Your task to perform on an android device: uninstall "Microsoft Outlook" Image 0: 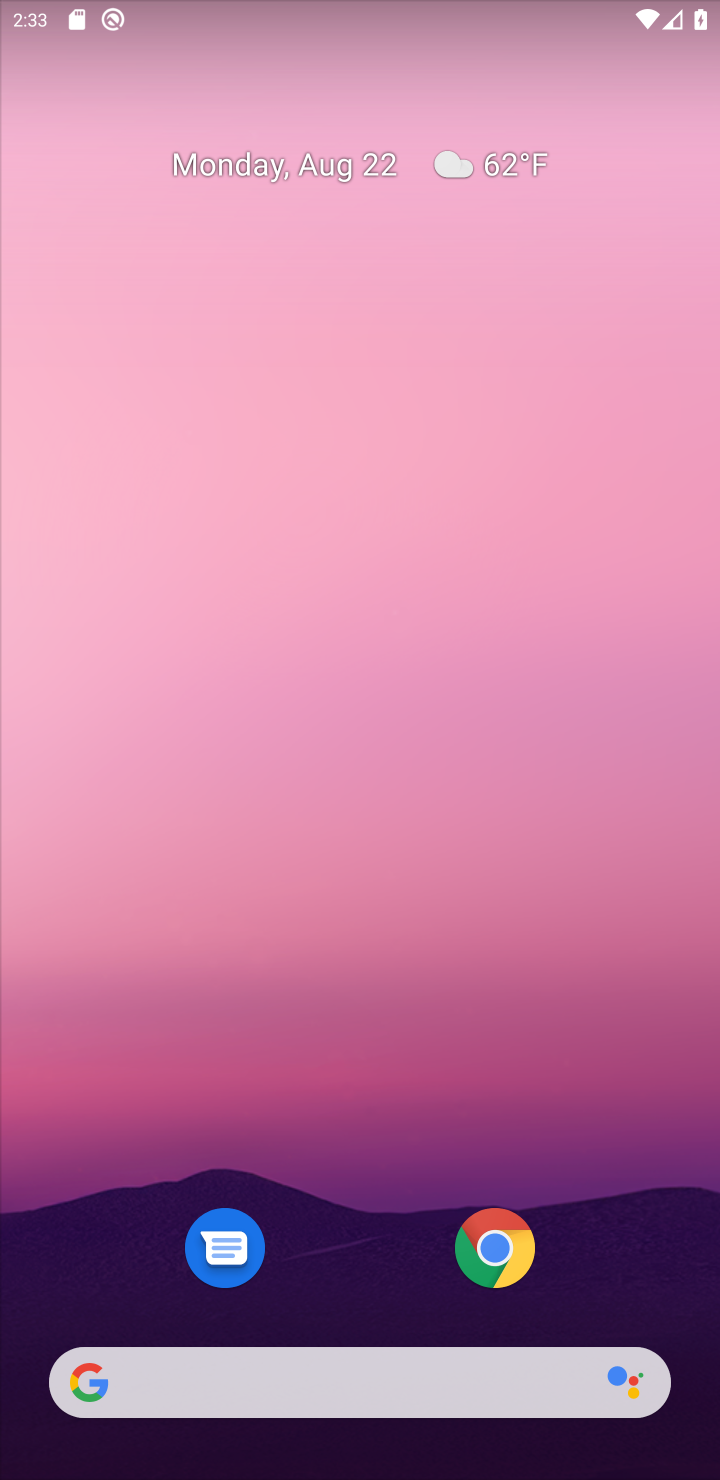
Step 0: drag from (340, 1263) to (335, 303)
Your task to perform on an android device: uninstall "Microsoft Outlook" Image 1: 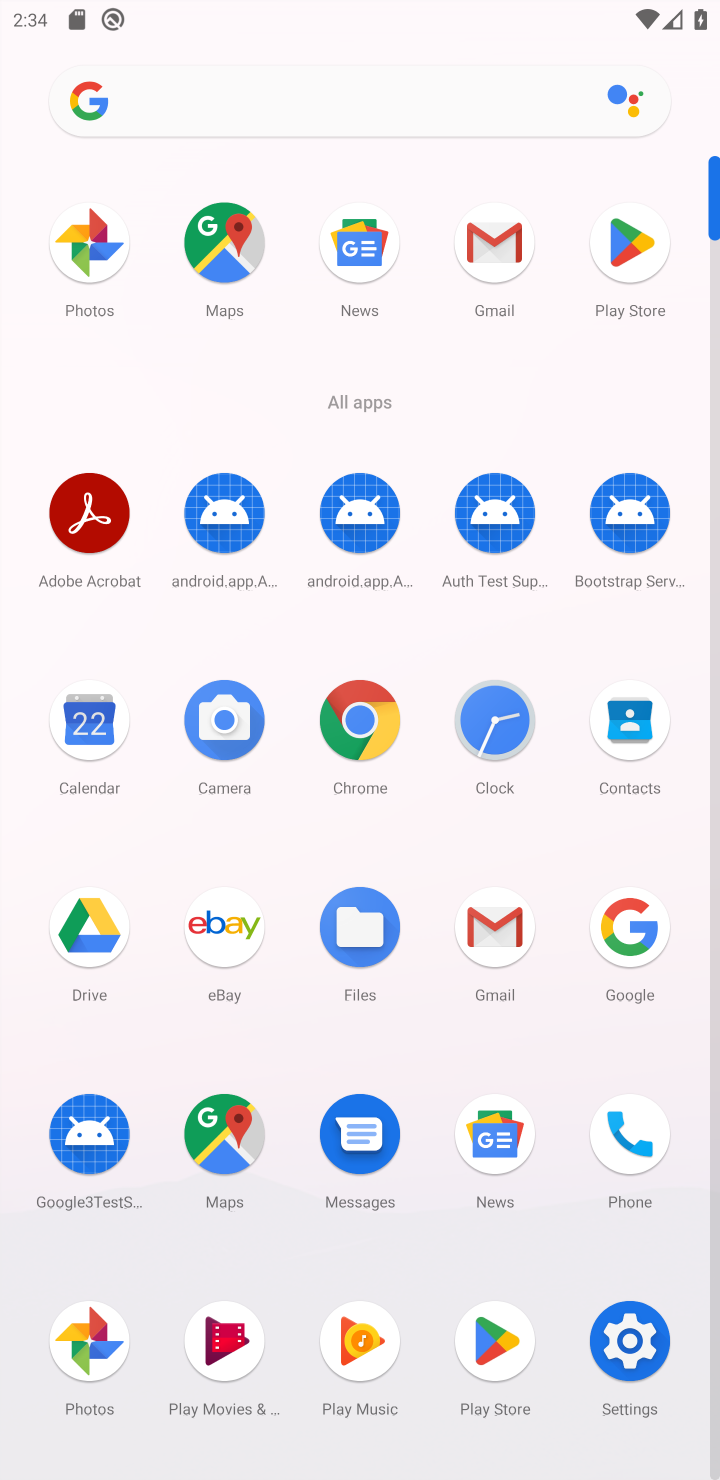
Step 1: click (631, 243)
Your task to perform on an android device: uninstall "Microsoft Outlook" Image 2: 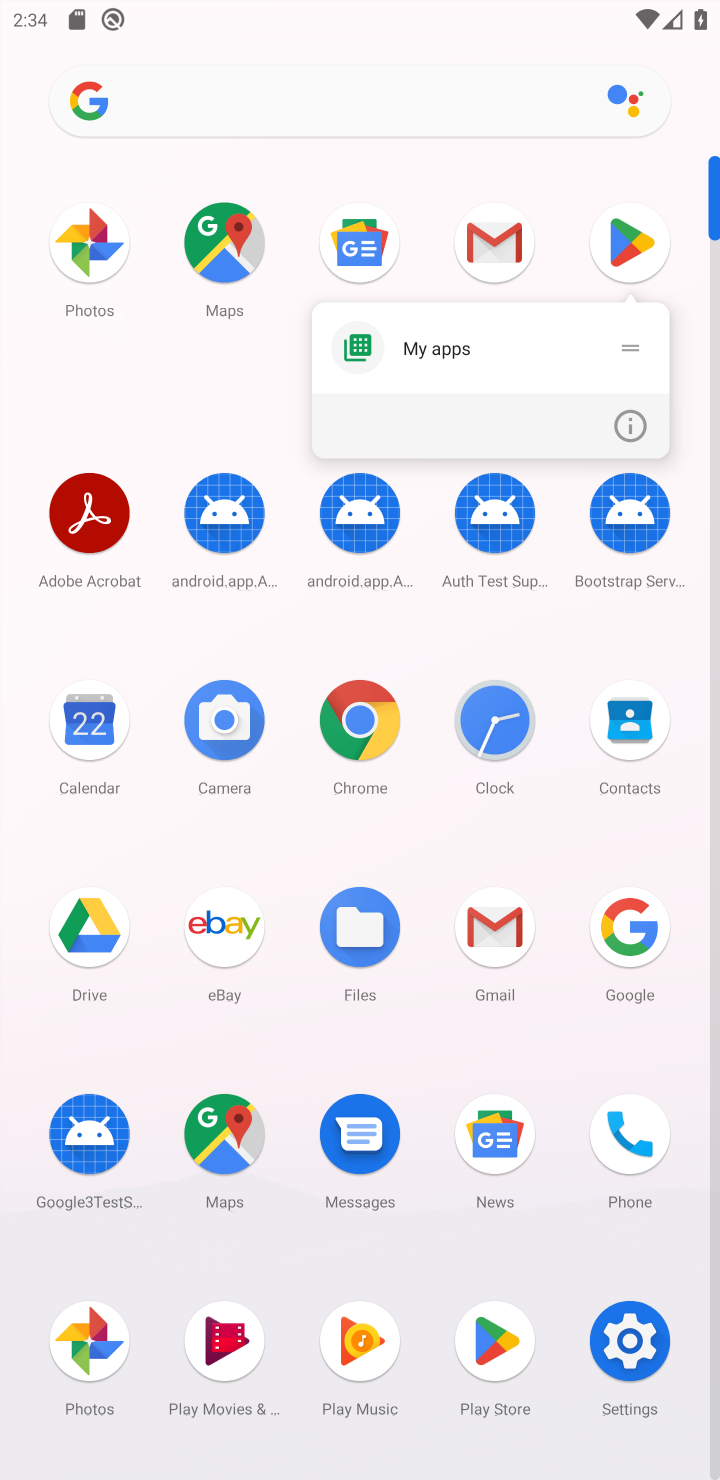
Step 2: click (616, 225)
Your task to perform on an android device: uninstall "Microsoft Outlook" Image 3: 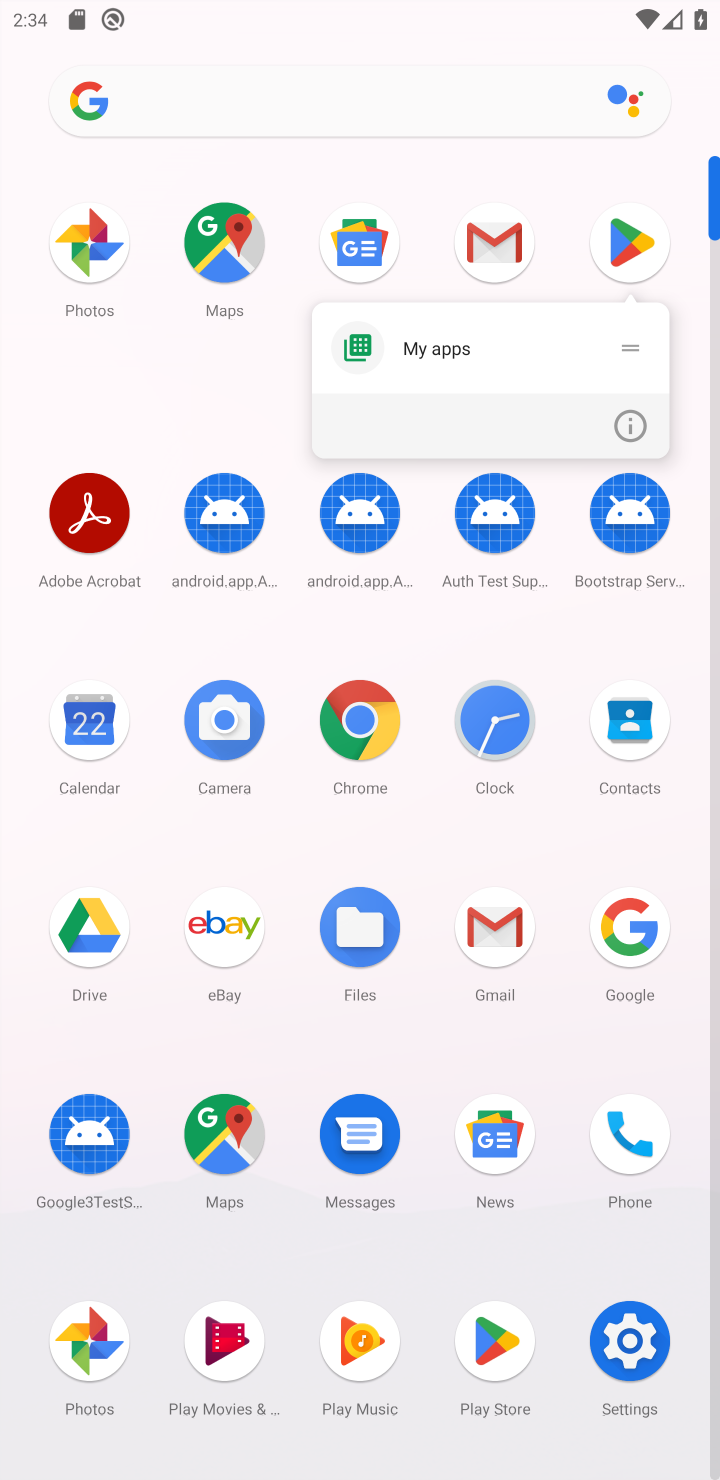
Step 3: click (631, 221)
Your task to perform on an android device: uninstall "Microsoft Outlook" Image 4: 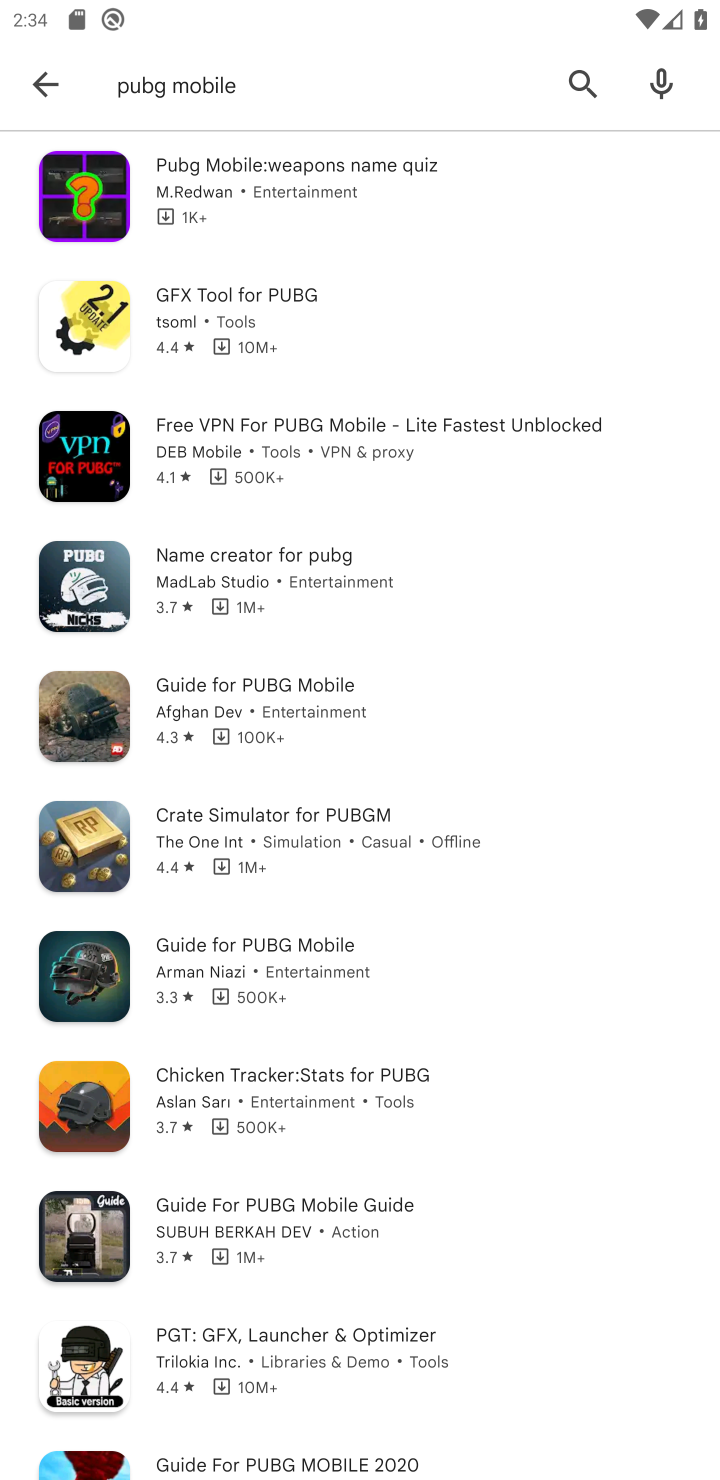
Step 4: click (251, 72)
Your task to perform on an android device: uninstall "Microsoft Outlook" Image 5: 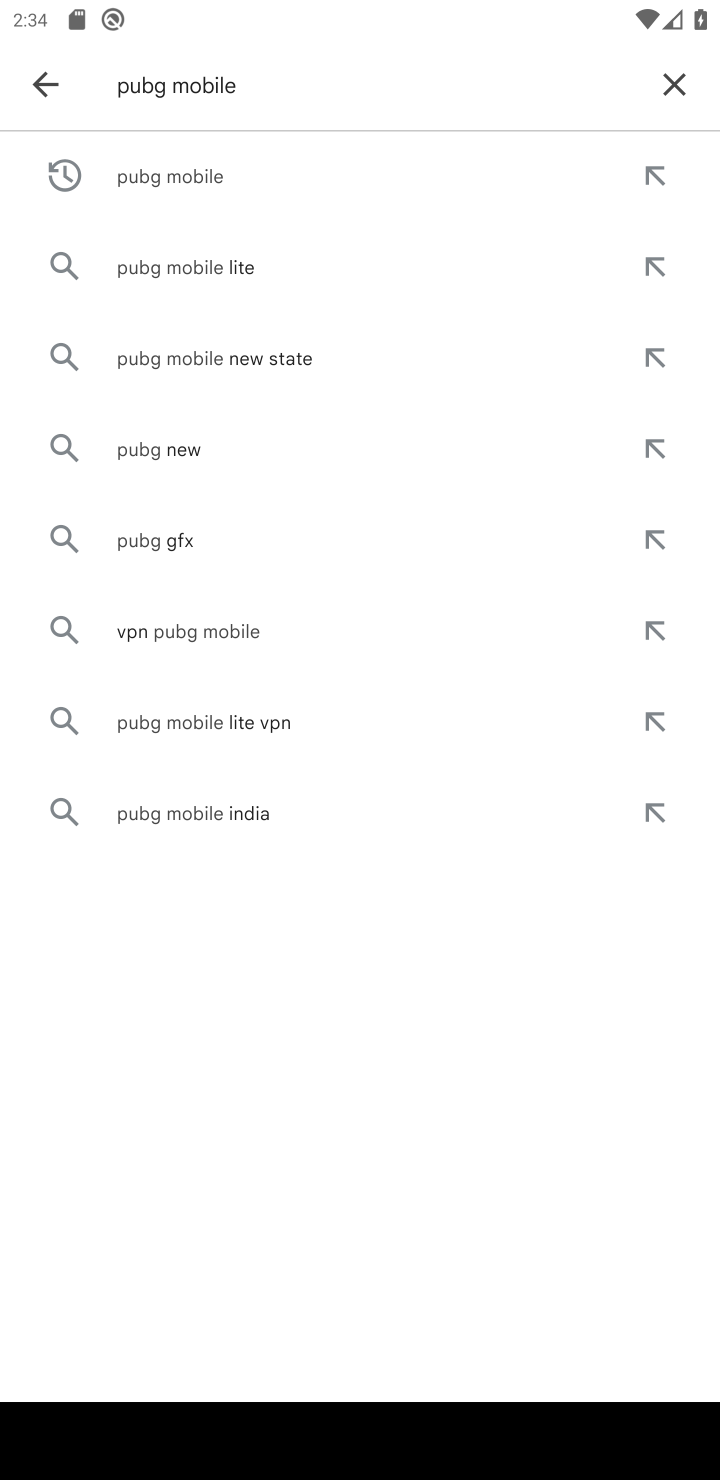
Step 5: click (671, 89)
Your task to perform on an android device: uninstall "Microsoft Outlook" Image 6: 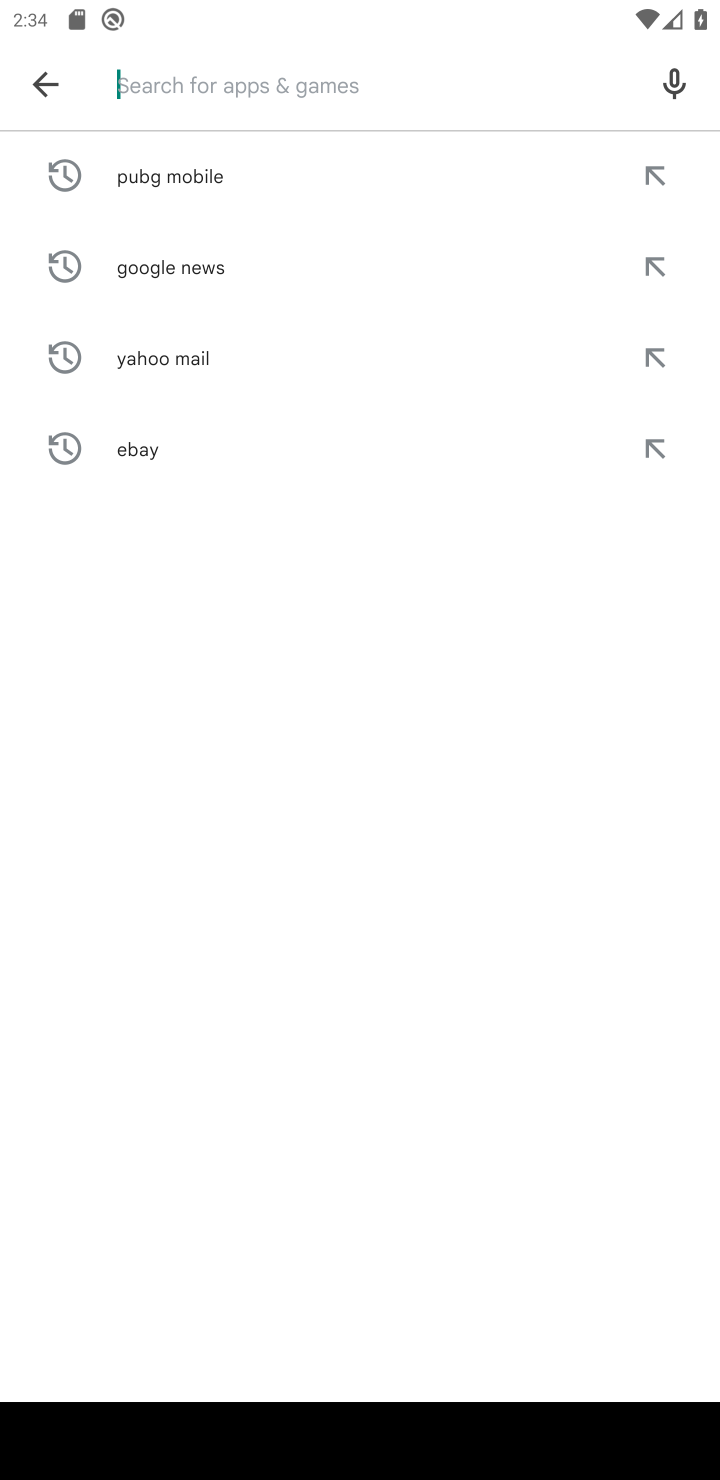
Step 6: type "microsoft Outlook"
Your task to perform on an android device: uninstall "Microsoft Outlook" Image 7: 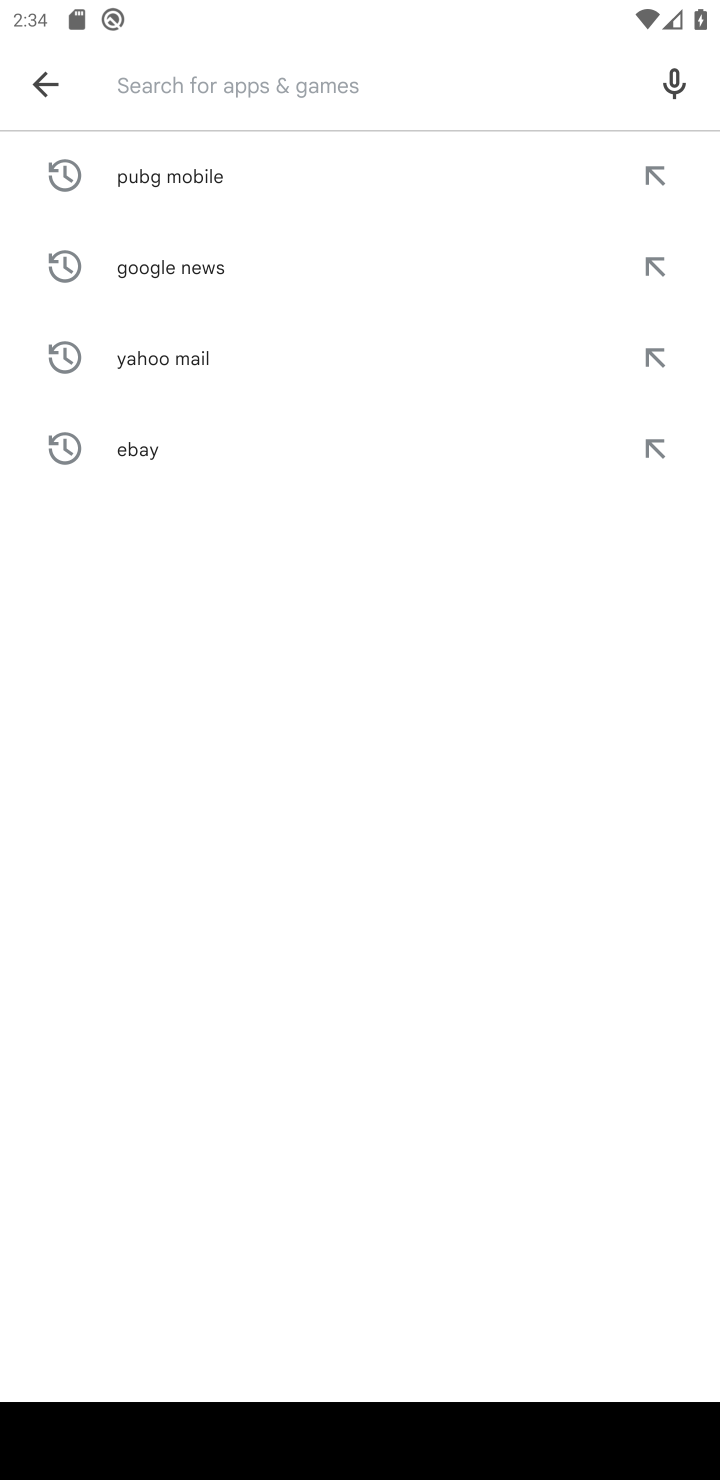
Step 7: click (369, 97)
Your task to perform on an android device: uninstall "Microsoft Outlook" Image 8: 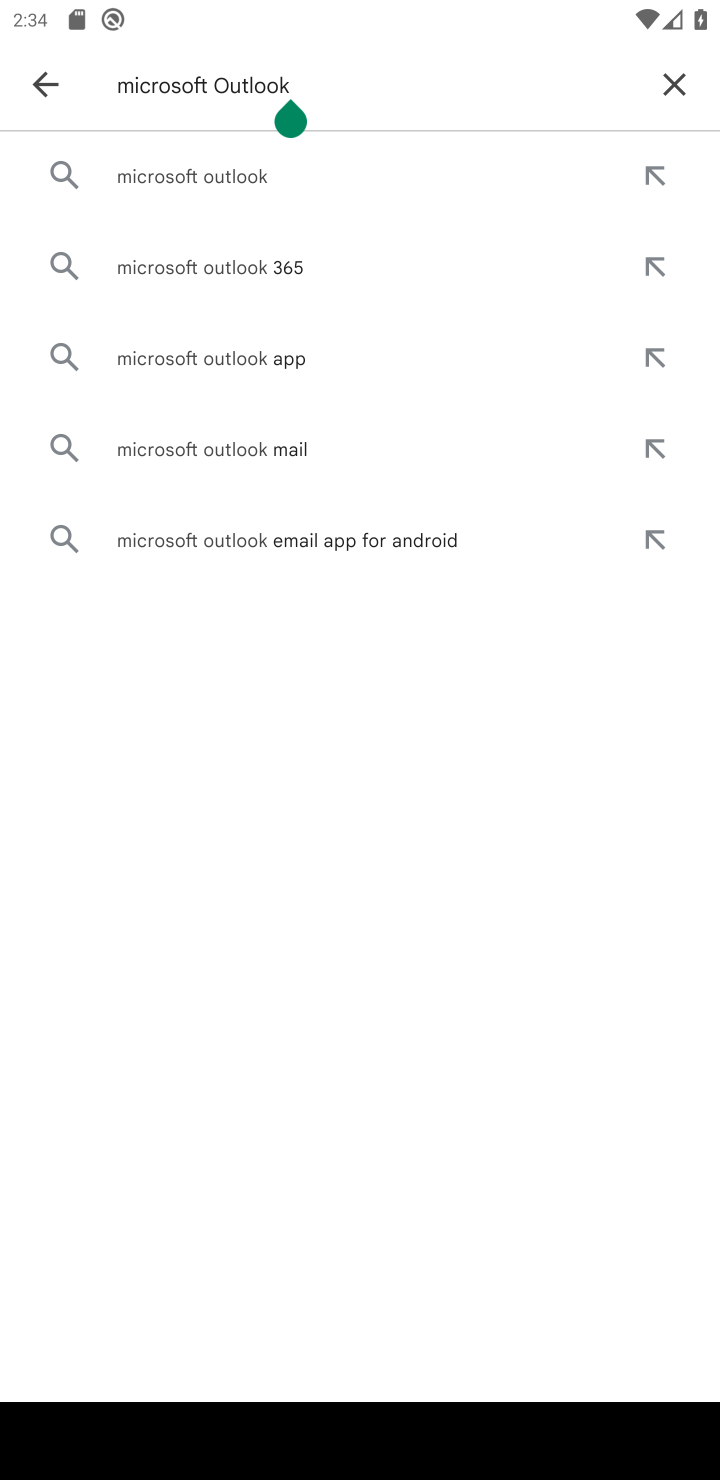
Step 8: click (217, 199)
Your task to perform on an android device: uninstall "Microsoft Outlook" Image 9: 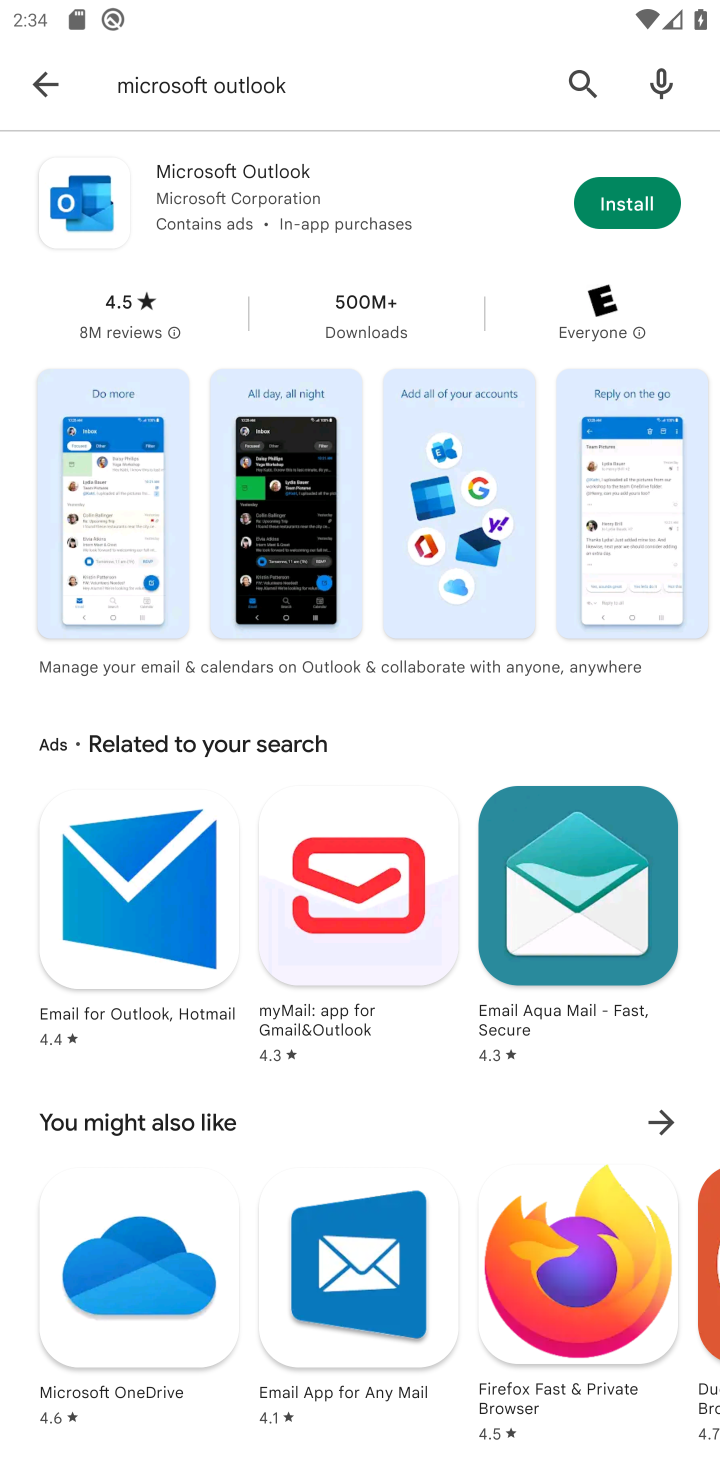
Step 9: task complete